Your task to perform on an android device: Open Yahoo.com Image 0: 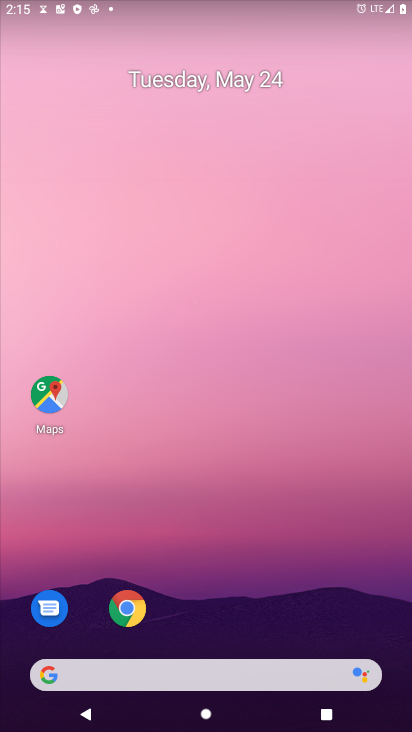
Step 0: drag from (286, 673) to (157, 87)
Your task to perform on an android device: Open Yahoo.com Image 1: 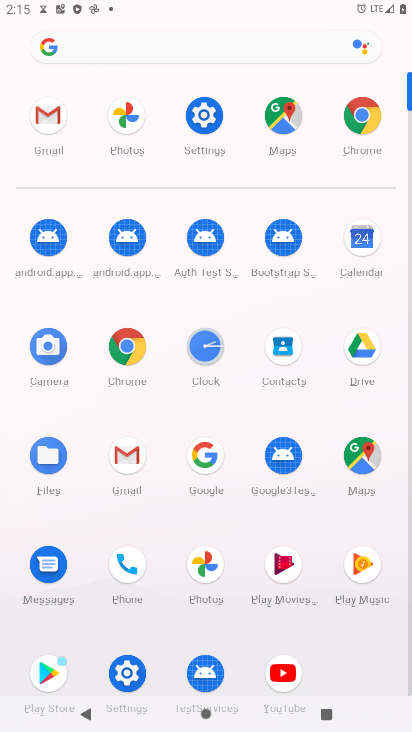
Step 1: click (353, 136)
Your task to perform on an android device: Open Yahoo.com Image 2: 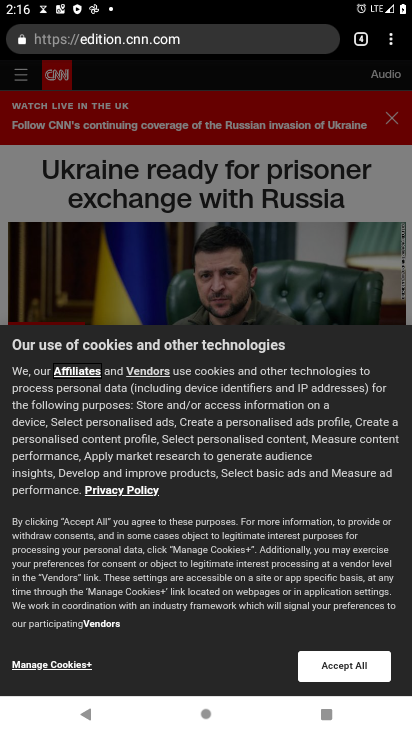
Step 2: click (205, 48)
Your task to perform on an android device: Open Yahoo.com Image 3: 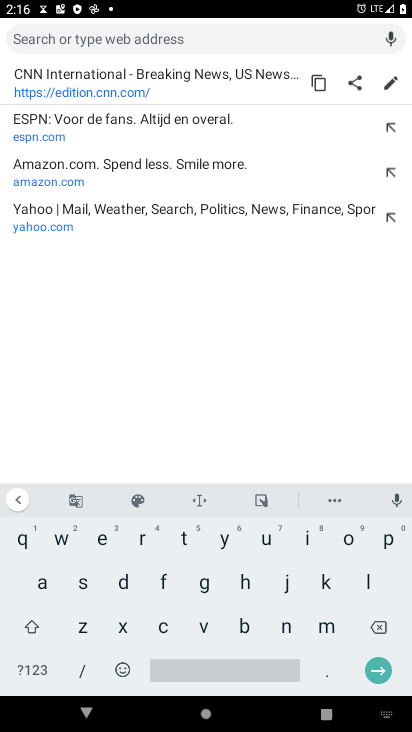
Step 3: click (226, 538)
Your task to perform on an android device: Open Yahoo.com Image 4: 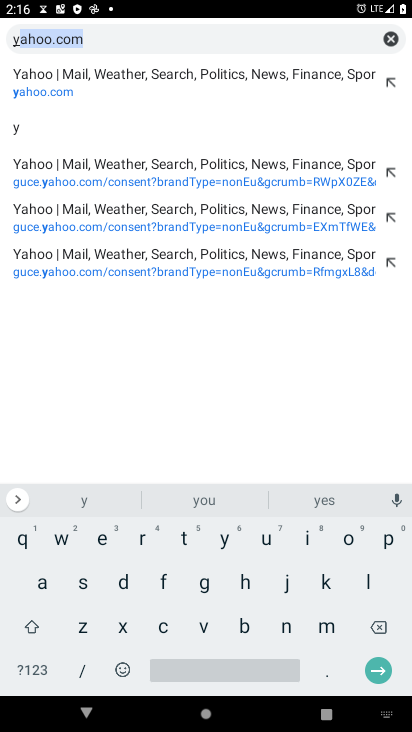
Step 4: click (167, 33)
Your task to perform on an android device: Open Yahoo.com Image 5: 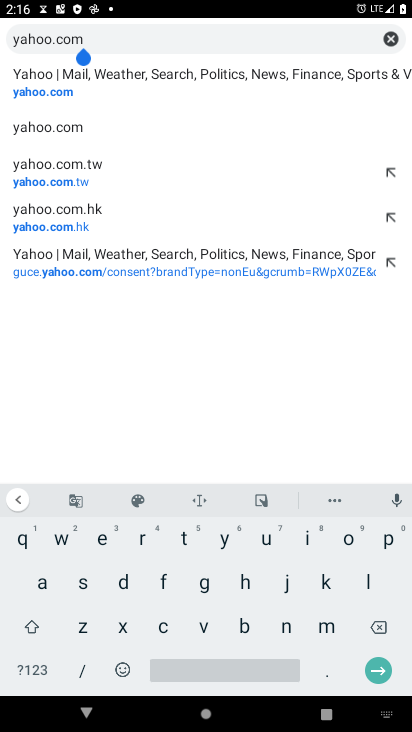
Step 5: click (378, 658)
Your task to perform on an android device: Open Yahoo.com Image 6: 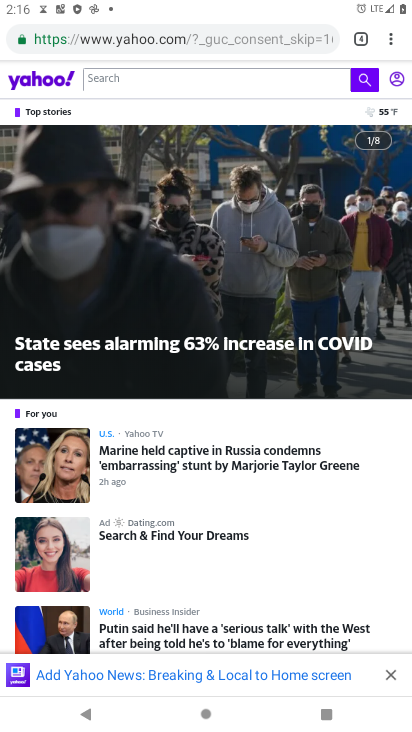
Step 6: task complete